Your task to perform on an android device: turn off javascript in the chrome app Image 0: 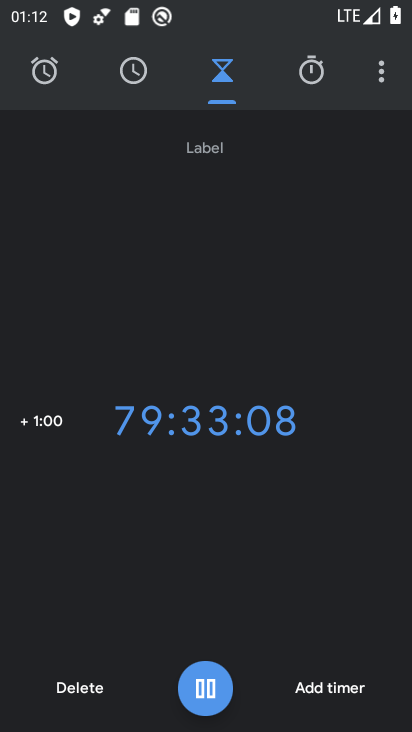
Step 0: press home button
Your task to perform on an android device: turn off javascript in the chrome app Image 1: 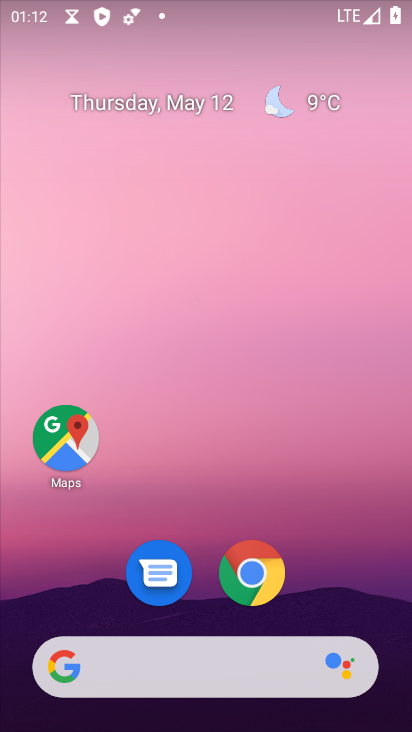
Step 1: click (255, 569)
Your task to perform on an android device: turn off javascript in the chrome app Image 2: 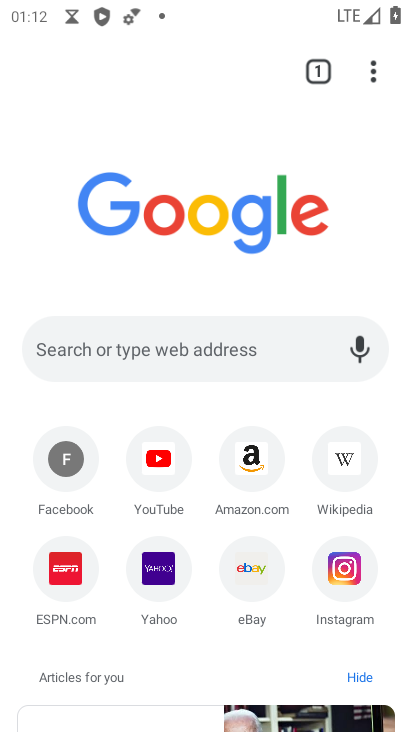
Step 2: click (361, 75)
Your task to perform on an android device: turn off javascript in the chrome app Image 3: 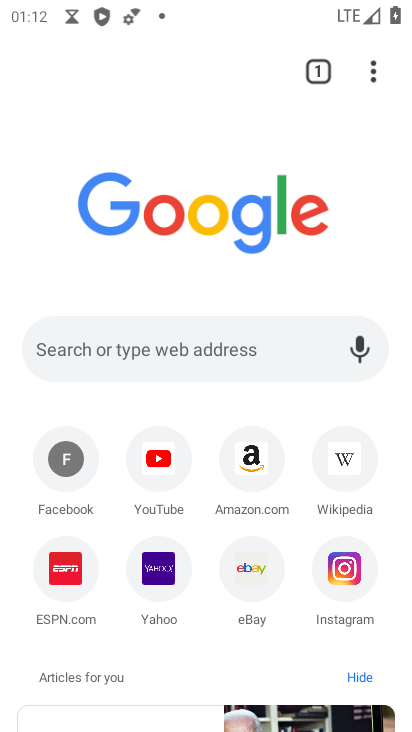
Step 3: click (351, 88)
Your task to perform on an android device: turn off javascript in the chrome app Image 4: 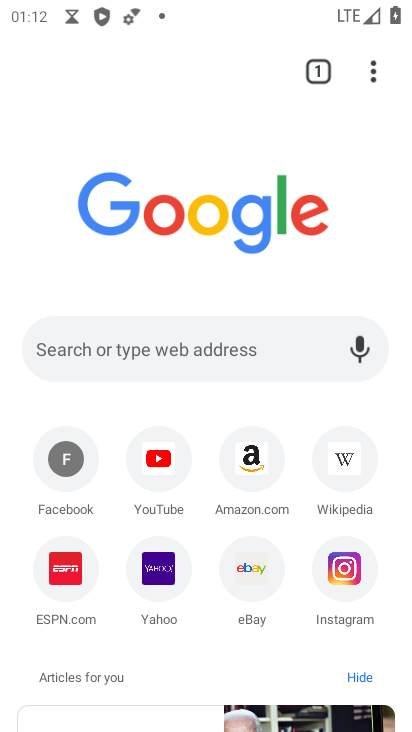
Step 4: click (360, 84)
Your task to perform on an android device: turn off javascript in the chrome app Image 5: 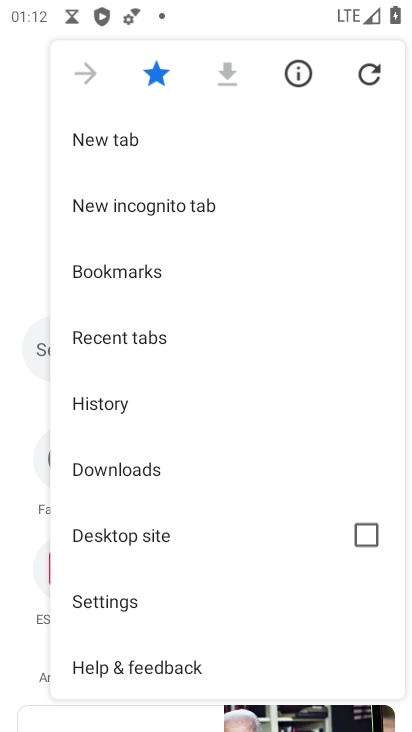
Step 5: click (100, 603)
Your task to perform on an android device: turn off javascript in the chrome app Image 6: 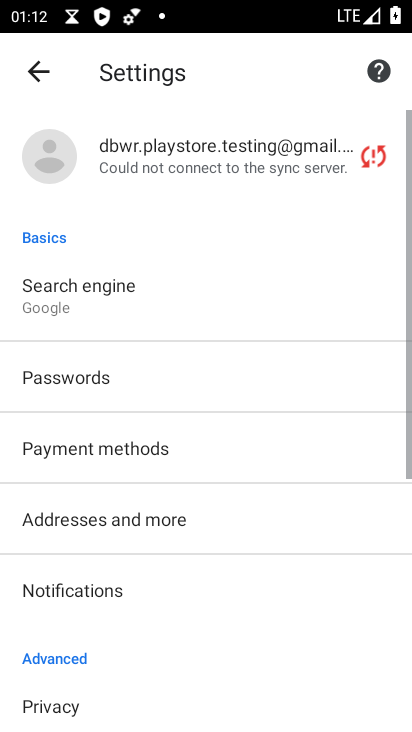
Step 6: drag from (192, 614) to (169, 314)
Your task to perform on an android device: turn off javascript in the chrome app Image 7: 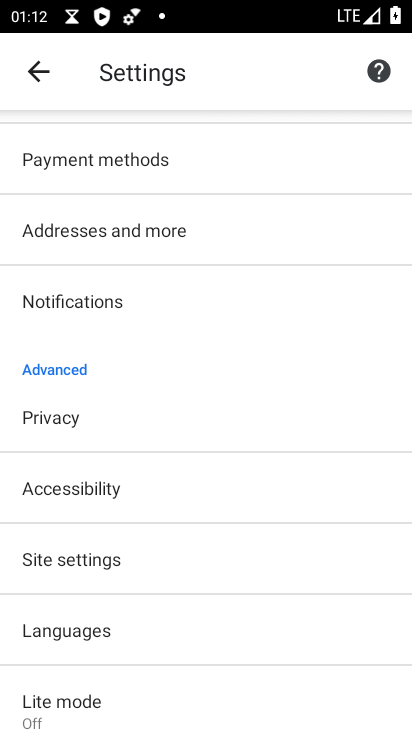
Step 7: click (113, 562)
Your task to perform on an android device: turn off javascript in the chrome app Image 8: 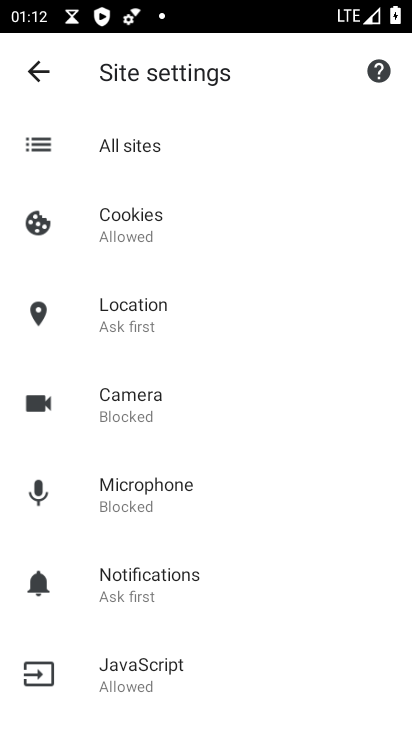
Step 8: click (126, 658)
Your task to perform on an android device: turn off javascript in the chrome app Image 9: 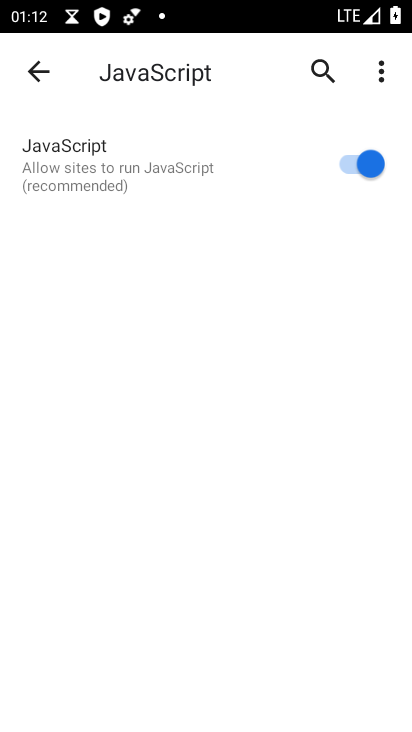
Step 9: click (375, 153)
Your task to perform on an android device: turn off javascript in the chrome app Image 10: 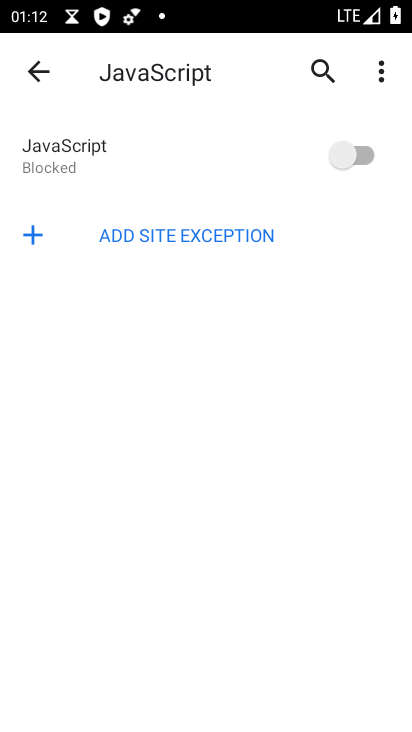
Step 10: task complete